Your task to perform on an android device: turn on the 24-hour format for clock Image 0: 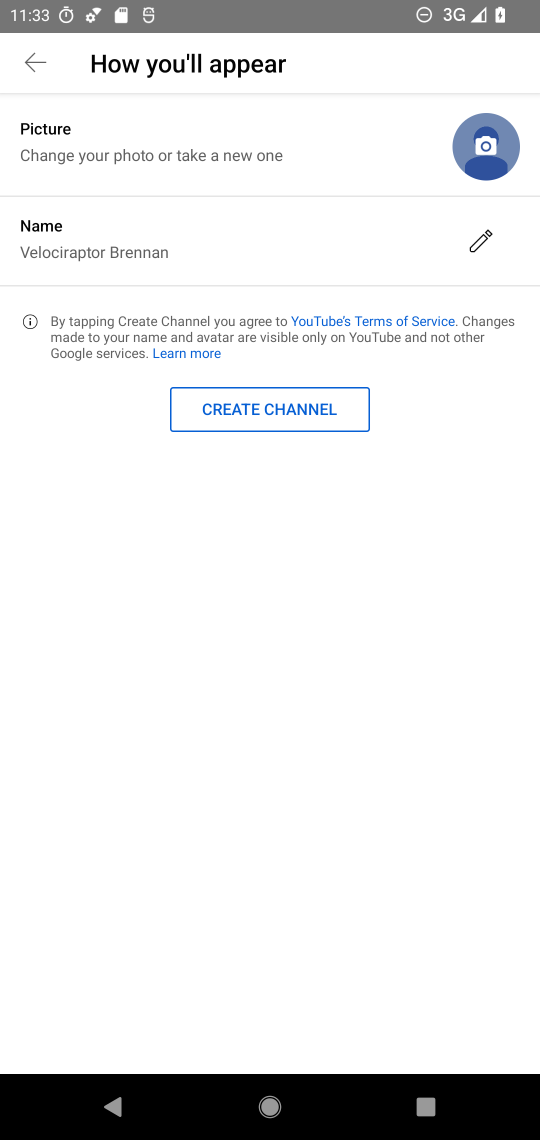
Step 0: press home button
Your task to perform on an android device: turn on the 24-hour format for clock Image 1: 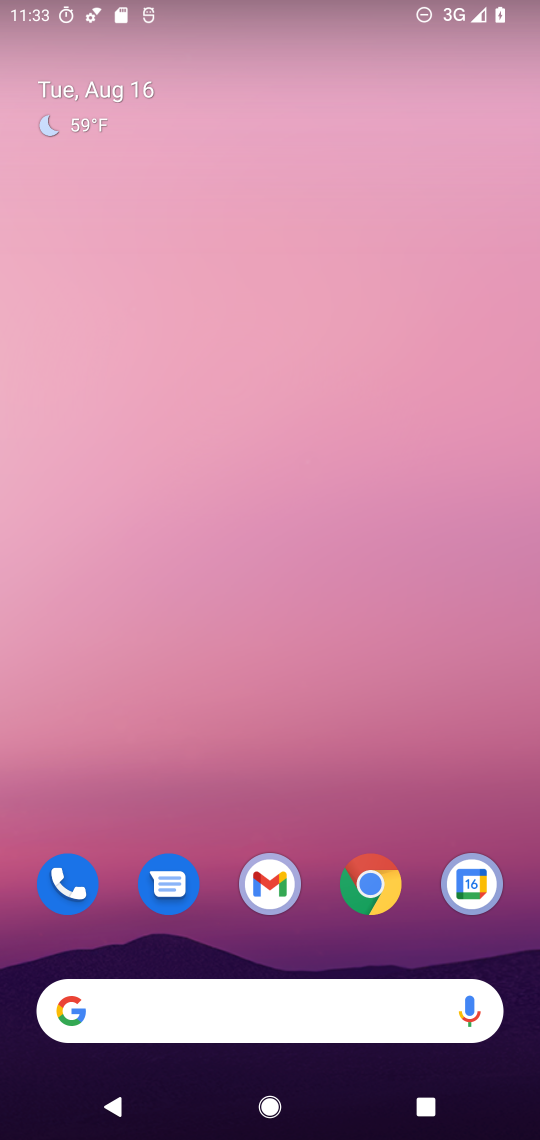
Step 1: drag from (254, 834) to (268, 170)
Your task to perform on an android device: turn on the 24-hour format for clock Image 2: 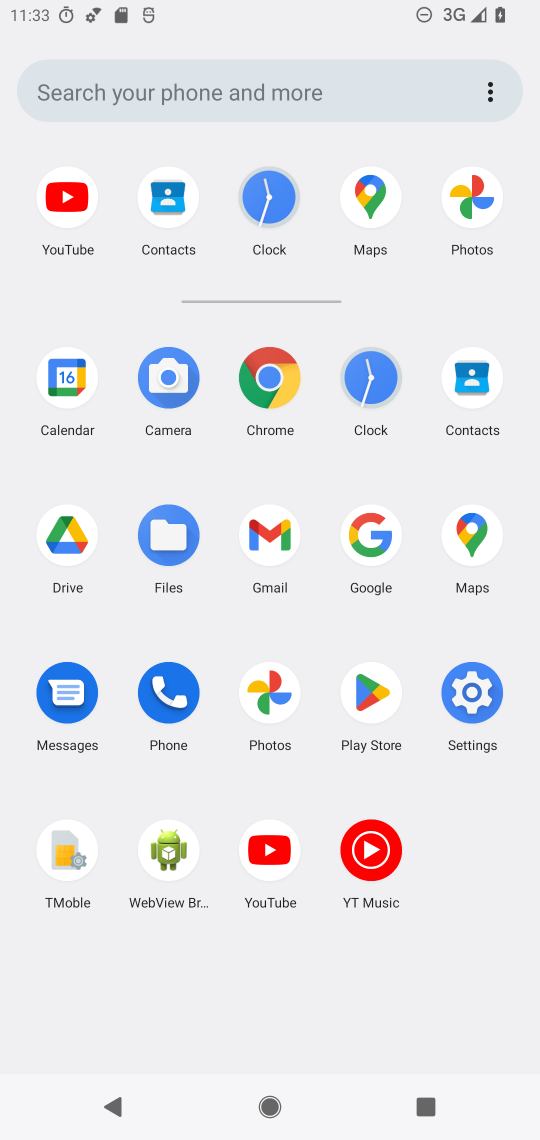
Step 2: click (471, 686)
Your task to perform on an android device: turn on the 24-hour format for clock Image 3: 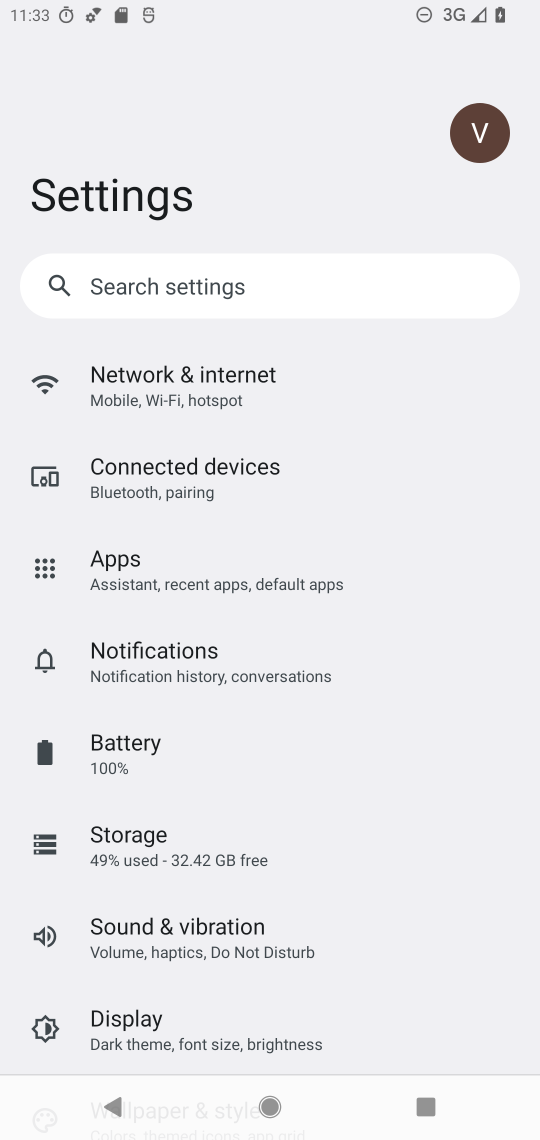
Step 3: press back button
Your task to perform on an android device: turn on the 24-hour format for clock Image 4: 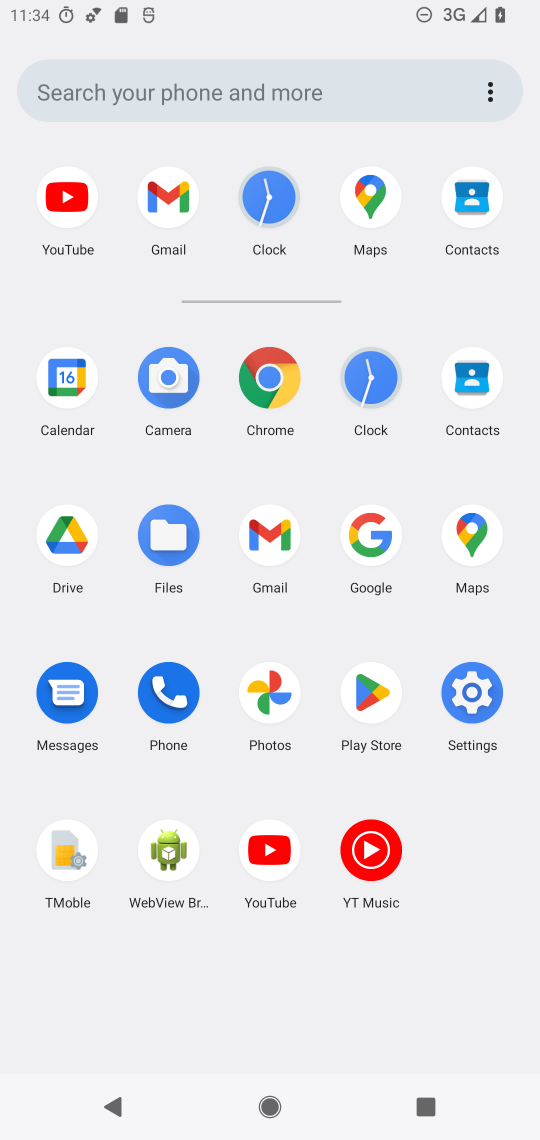
Step 4: click (363, 376)
Your task to perform on an android device: turn on the 24-hour format for clock Image 5: 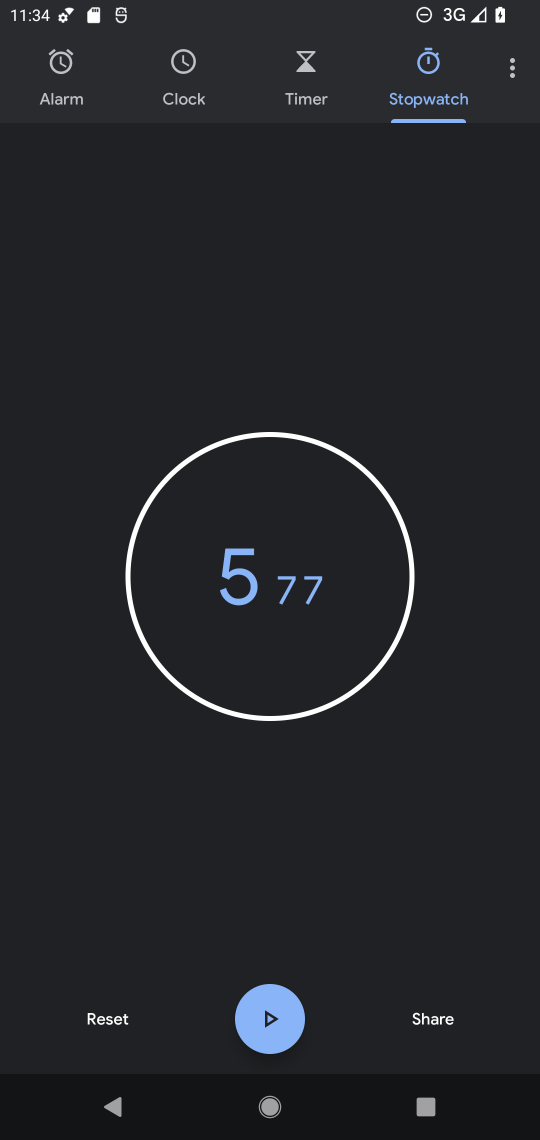
Step 5: click (514, 80)
Your task to perform on an android device: turn on the 24-hour format for clock Image 6: 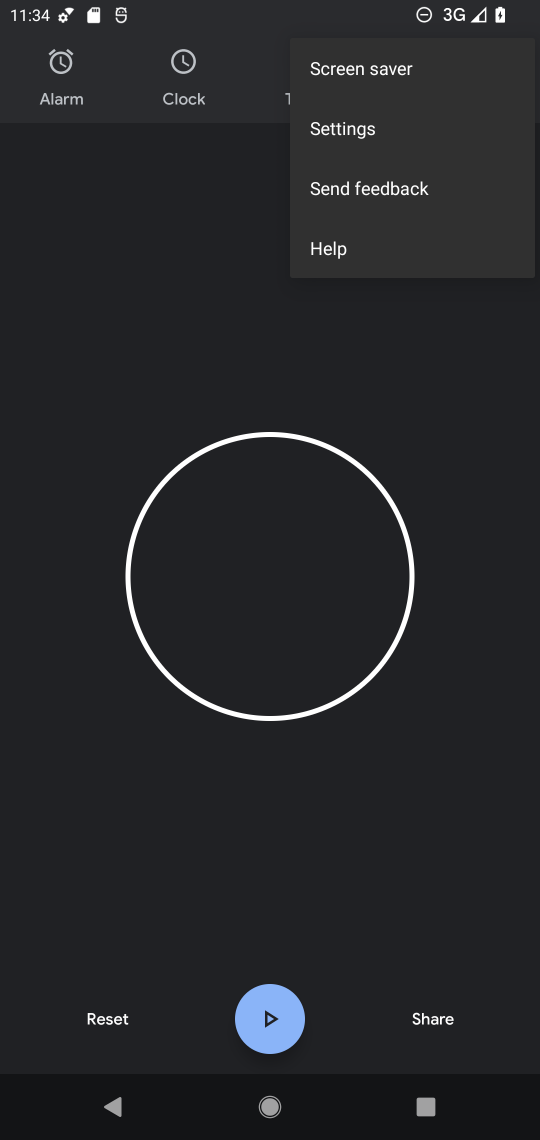
Step 6: click (387, 136)
Your task to perform on an android device: turn on the 24-hour format for clock Image 7: 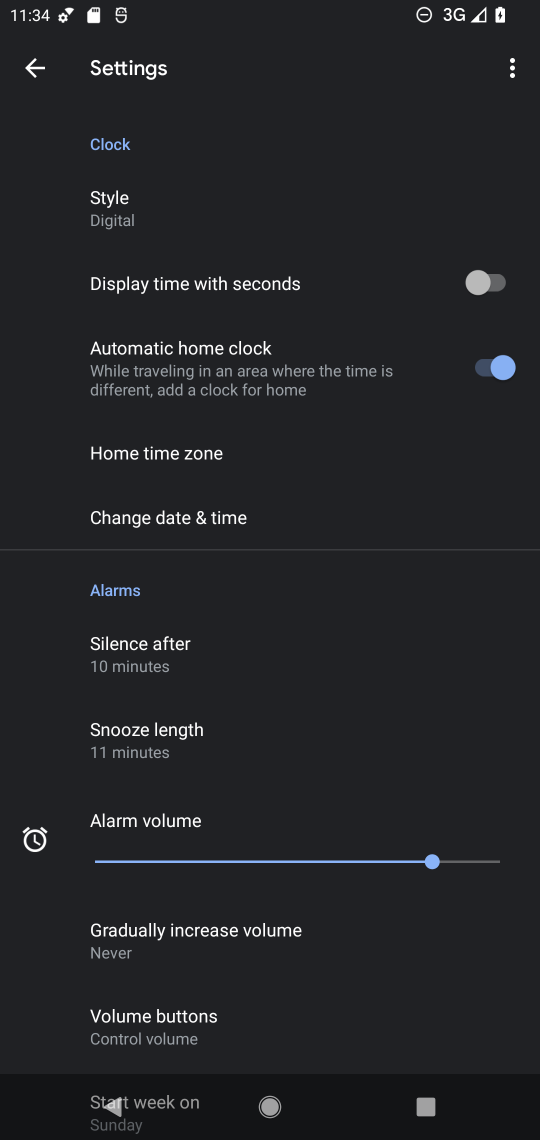
Step 7: click (232, 519)
Your task to perform on an android device: turn on the 24-hour format for clock Image 8: 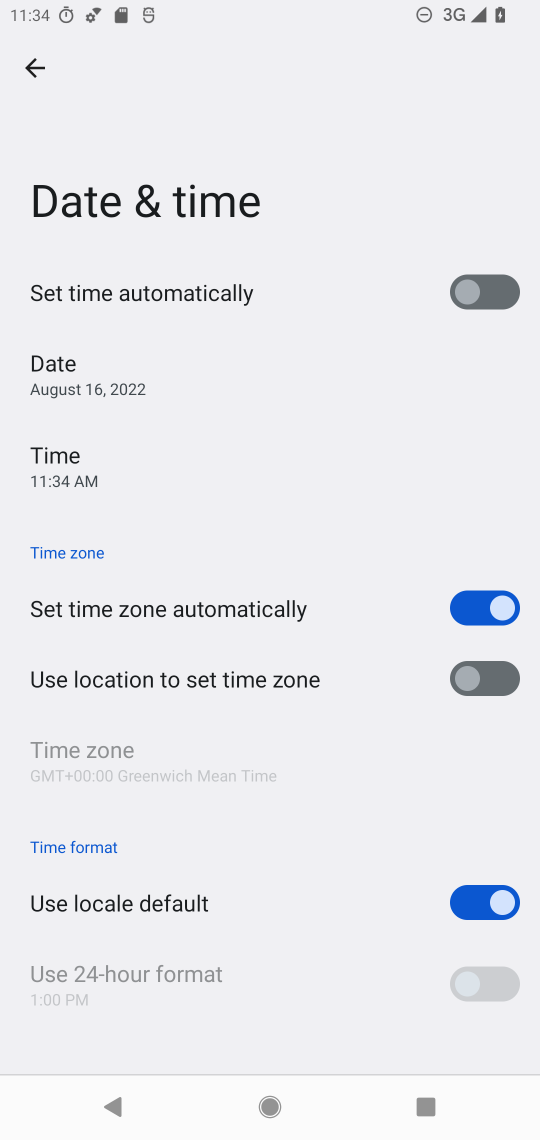
Step 8: click (475, 916)
Your task to perform on an android device: turn on the 24-hour format for clock Image 9: 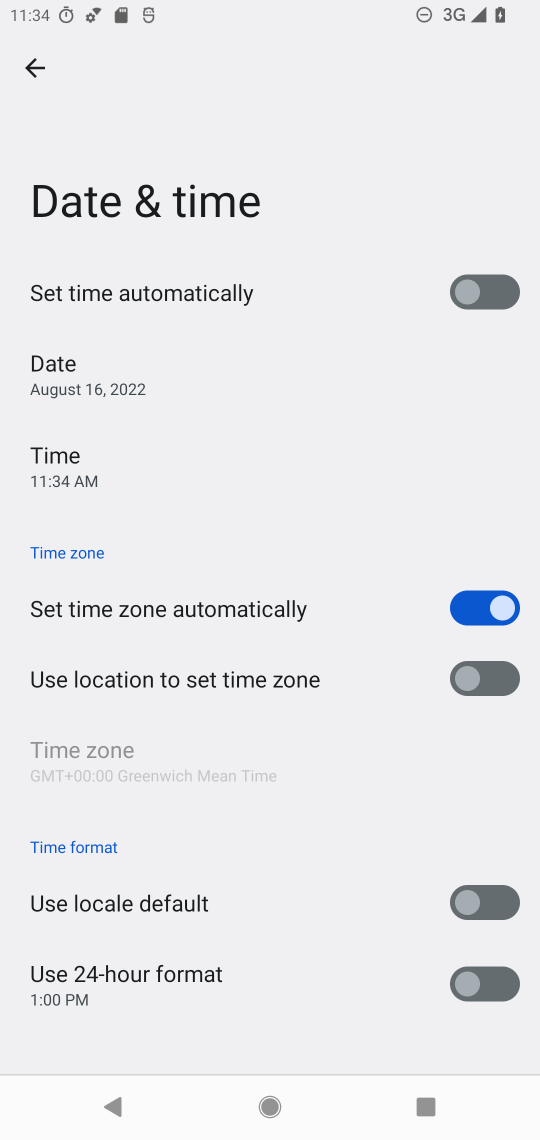
Step 9: click (515, 989)
Your task to perform on an android device: turn on the 24-hour format for clock Image 10: 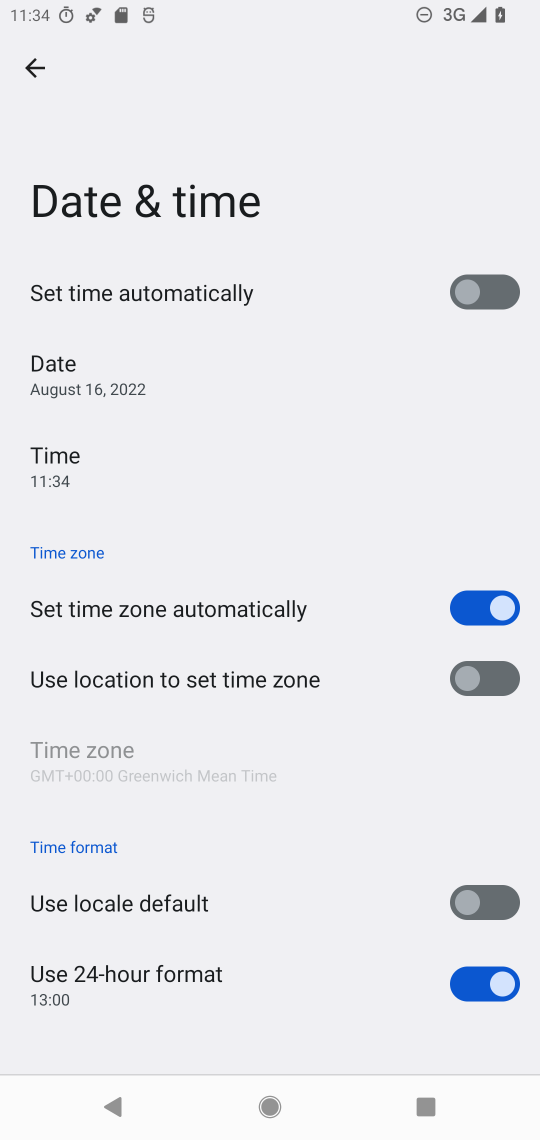
Step 10: task complete